Your task to perform on an android device: open the mobile data screen to see how much data has been used Image 0: 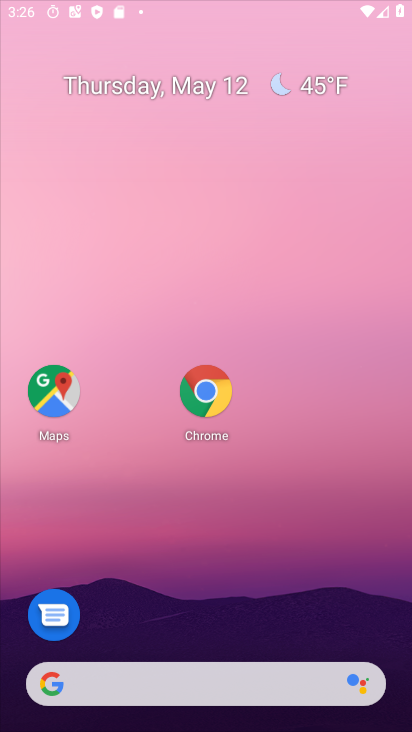
Step 0: press home button
Your task to perform on an android device: open the mobile data screen to see how much data has been used Image 1: 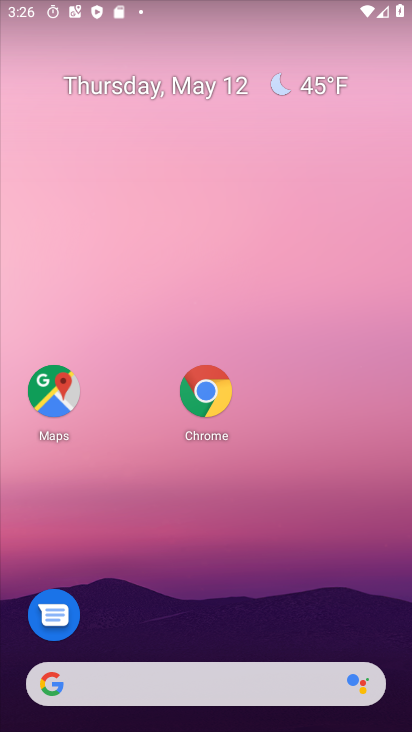
Step 1: drag from (197, 620) to (200, 17)
Your task to perform on an android device: open the mobile data screen to see how much data has been used Image 2: 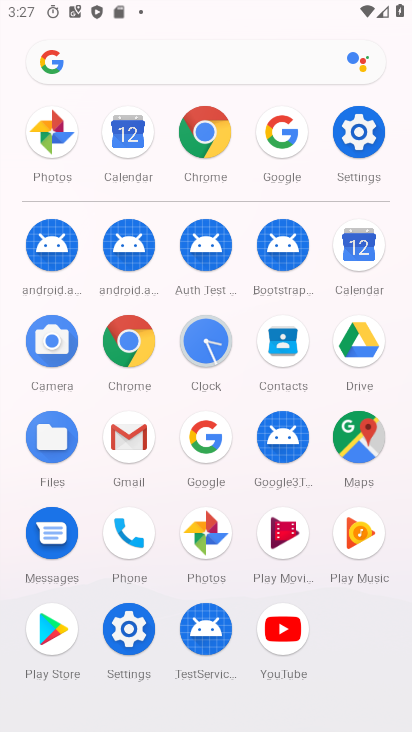
Step 2: click (360, 129)
Your task to perform on an android device: open the mobile data screen to see how much data has been used Image 3: 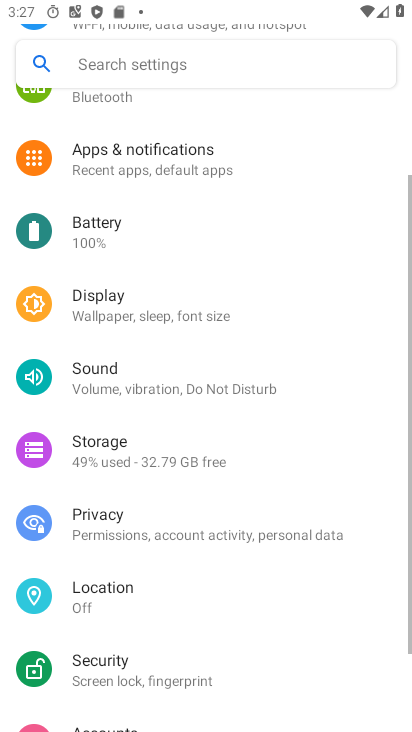
Step 3: drag from (185, 171) to (246, 554)
Your task to perform on an android device: open the mobile data screen to see how much data has been used Image 4: 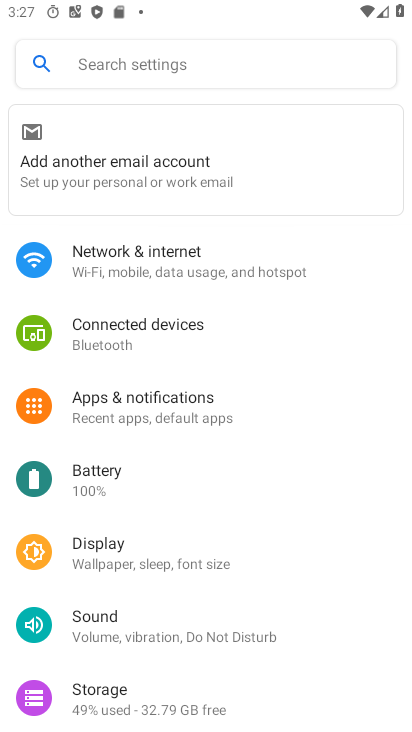
Step 4: click (167, 267)
Your task to perform on an android device: open the mobile data screen to see how much data has been used Image 5: 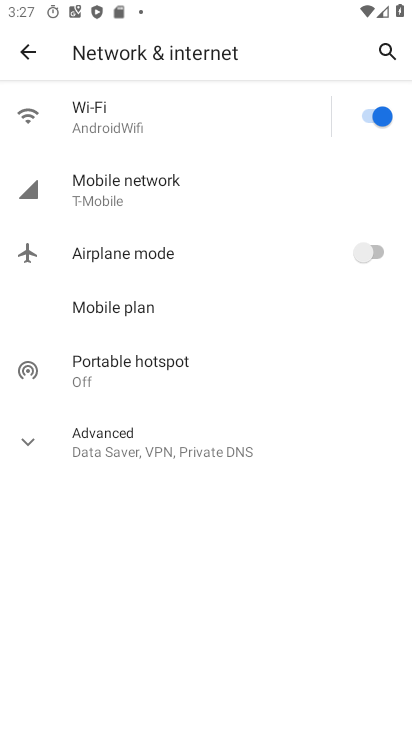
Step 5: click (121, 191)
Your task to perform on an android device: open the mobile data screen to see how much data has been used Image 6: 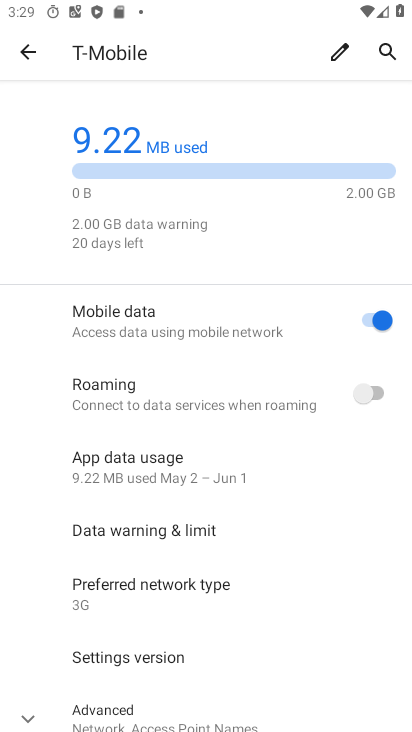
Step 6: task complete